Your task to perform on an android device: Set the phone to "Do not disturb". Image 0: 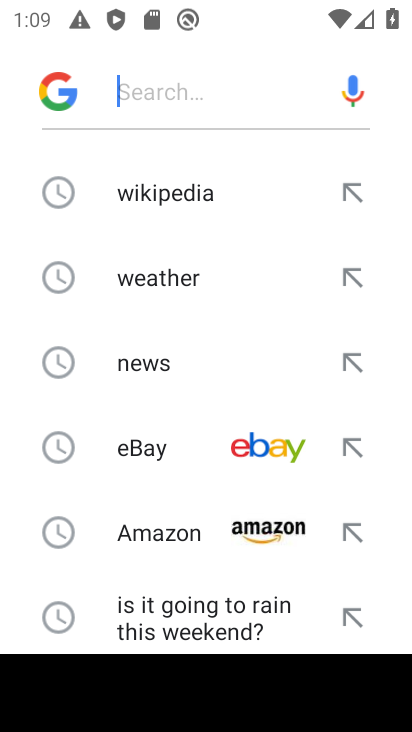
Step 0: press back button
Your task to perform on an android device: Set the phone to "Do not disturb". Image 1: 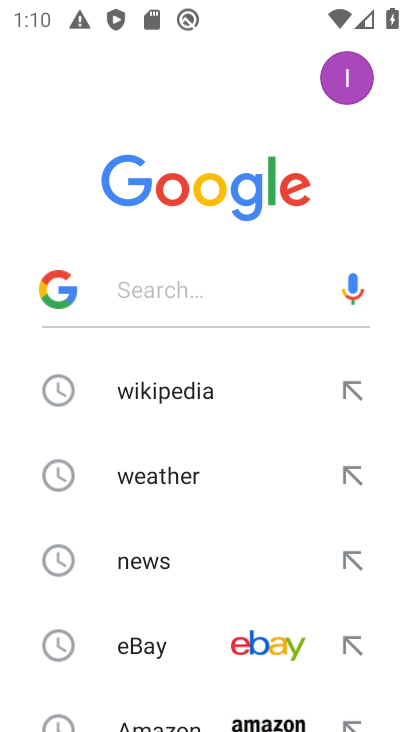
Step 1: press back button
Your task to perform on an android device: Set the phone to "Do not disturb". Image 2: 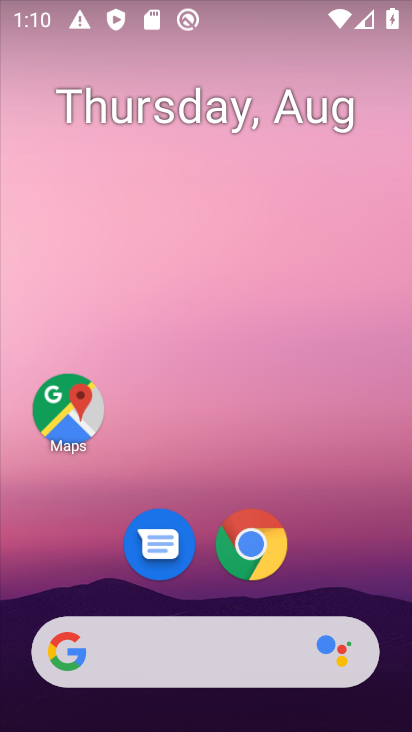
Step 2: drag from (211, 599) to (288, 23)
Your task to perform on an android device: Set the phone to "Do not disturb". Image 3: 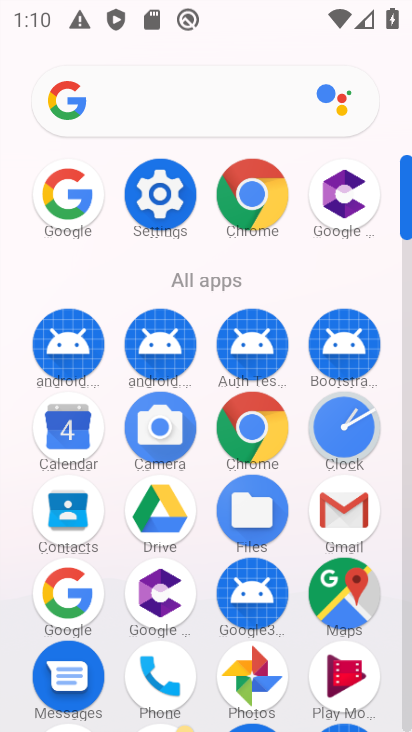
Step 3: drag from (129, 4) to (77, 681)
Your task to perform on an android device: Set the phone to "Do not disturb". Image 4: 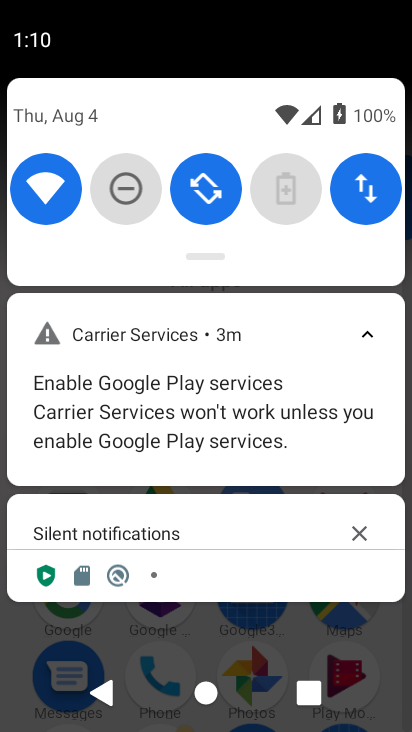
Step 4: click (124, 202)
Your task to perform on an android device: Set the phone to "Do not disturb". Image 5: 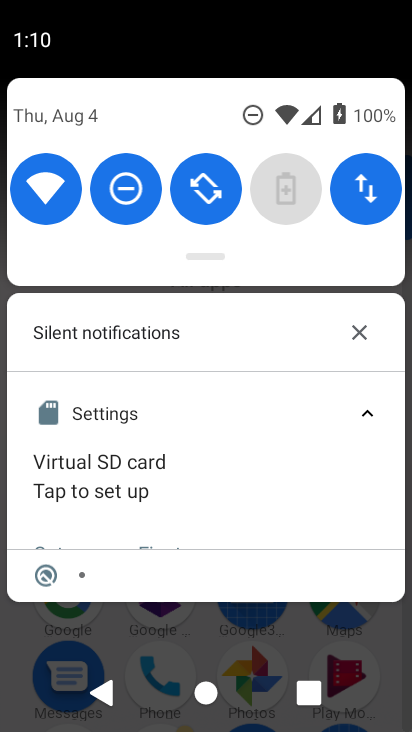
Step 5: task complete